Your task to perform on an android device: open the mobile data screen to see how much data has been used Image 0: 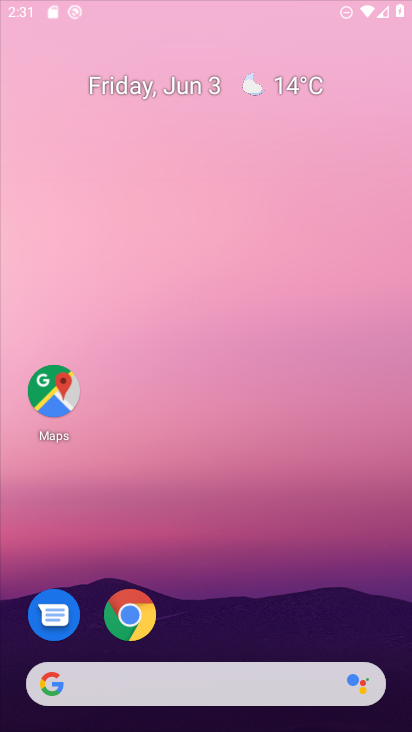
Step 0: drag from (165, 568) to (225, 72)
Your task to perform on an android device: open the mobile data screen to see how much data has been used Image 1: 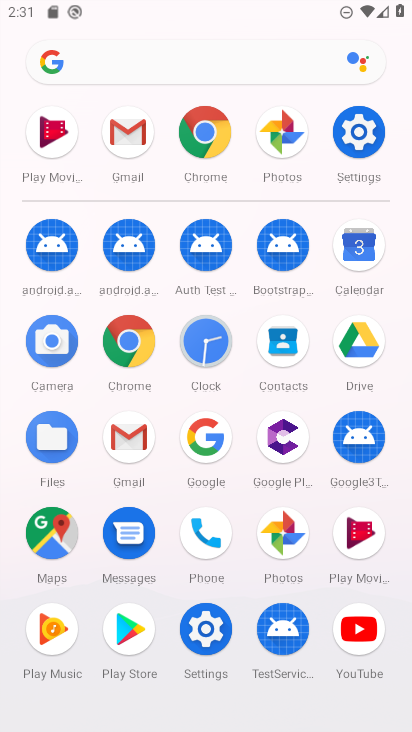
Step 1: drag from (175, 580) to (247, 206)
Your task to perform on an android device: open the mobile data screen to see how much data has been used Image 2: 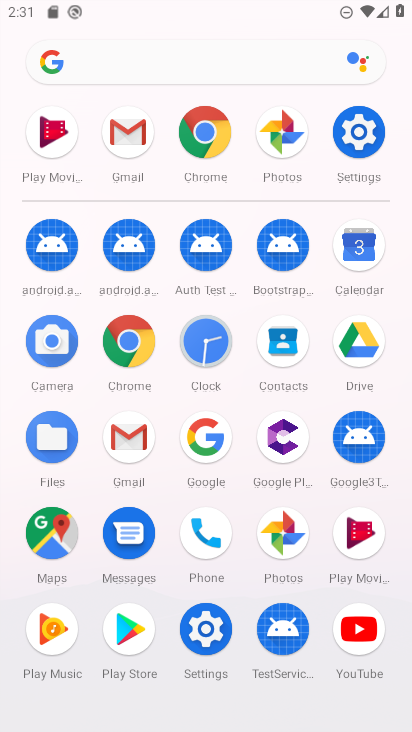
Step 2: click (196, 632)
Your task to perform on an android device: open the mobile data screen to see how much data has been used Image 3: 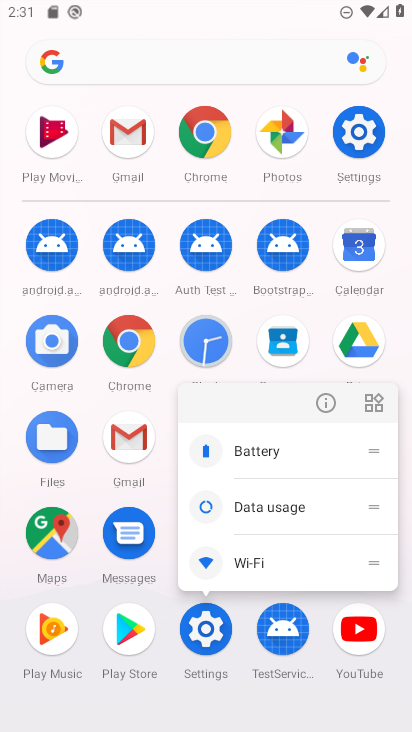
Step 3: click (343, 393)
Your task to perform on an android device: open the mobile data screen to see how much data has been used Image 4: 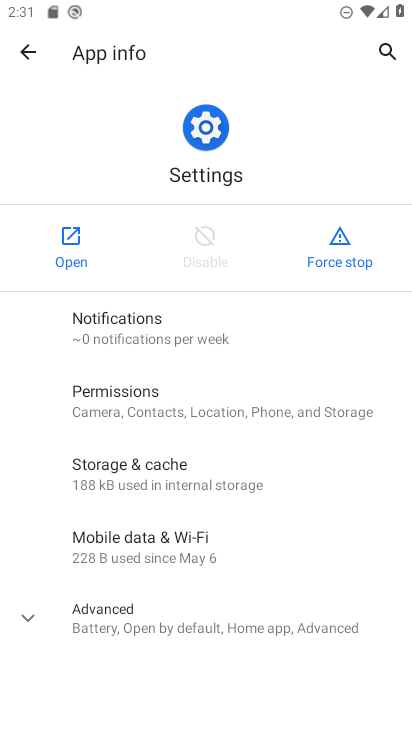
Step 4: click (73, 241)
Your task to perform on an android device: open the mobile data screen to see how much data has been used Image 5: 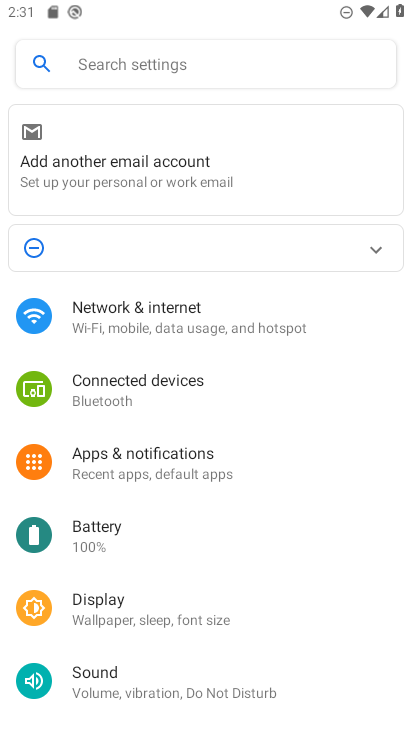
Step 5: drag from (221, 602) to (235, 320)
Your task to perform on an android device: open the mobile data screen to see how much data has been used Image 6: 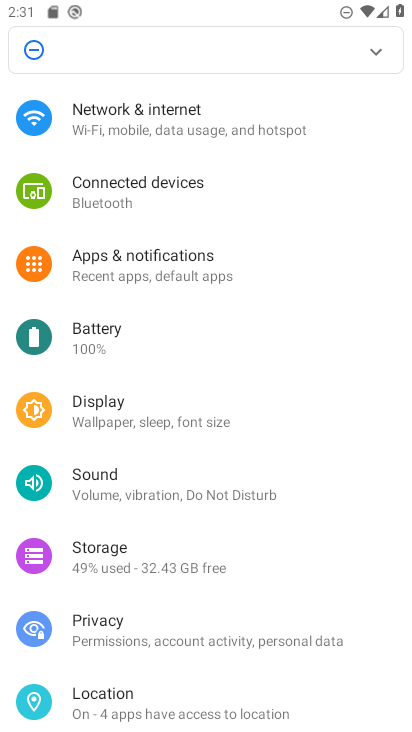
Step 6: drag from (180, 531) to (178, 230)
Your task to perform on an android device: open the mobile data screen to see how much data has been used Image 7: 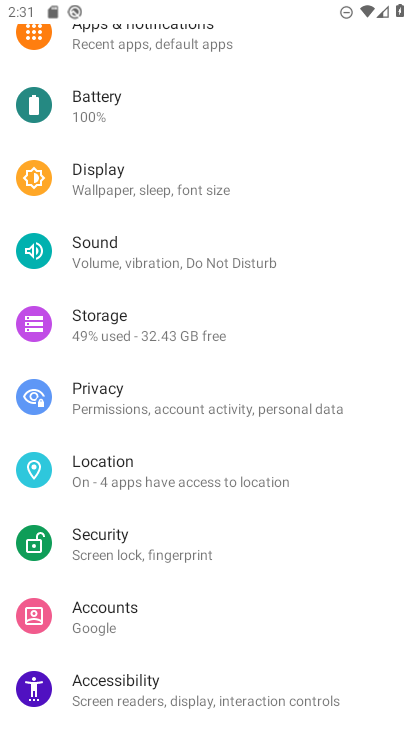
Step 7: drag from (262, 606) to (256, 383)
Your task to perform on an android device: open the mobile data screen to see how much data has been used Image 8: 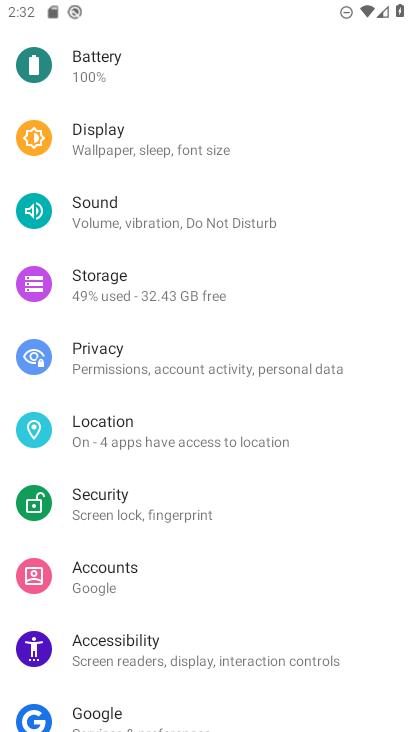
Step 8: drag from (255, 604) to (212, 145)
Your task to perform on an android device: open the mobile data screen to see how much data has been used Image 9: 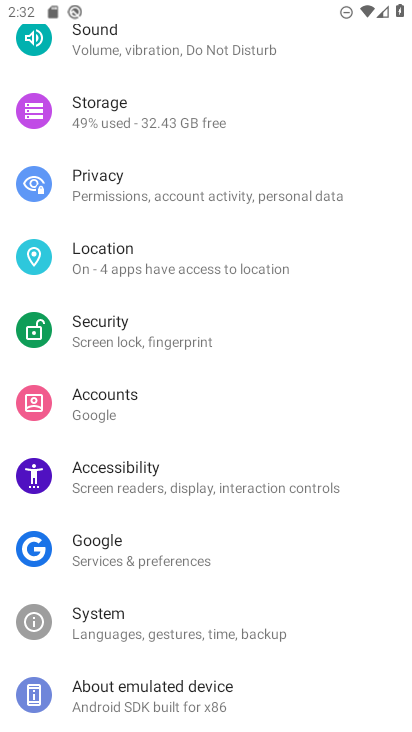
Step 9: drag from (242, 133) to (385, 727)
Your task to perform on an android device: open the mobile data screen to see how much data has been used Image 10: 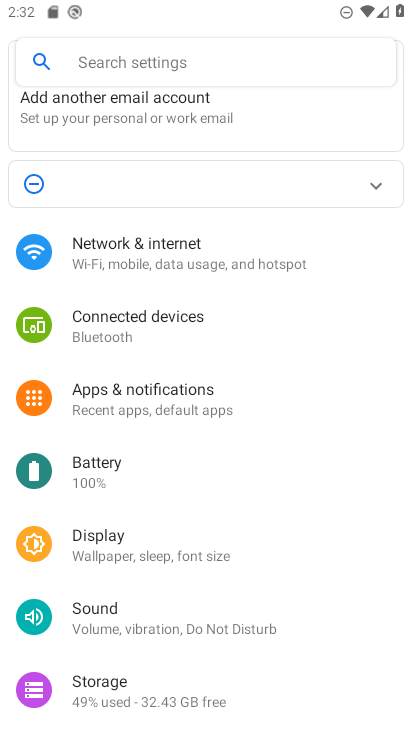
Step 10: click (217, 255)
Your task to perform on an android device: open the mobile data screen to see how much data has been used Image 11: 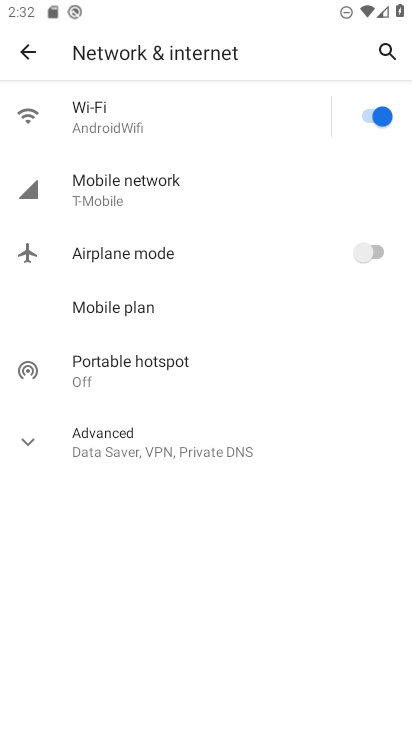
Step 11: click (225, 196)
Your task to perform on an android device: open the mobile data screen to see how much data has been used Image 12: 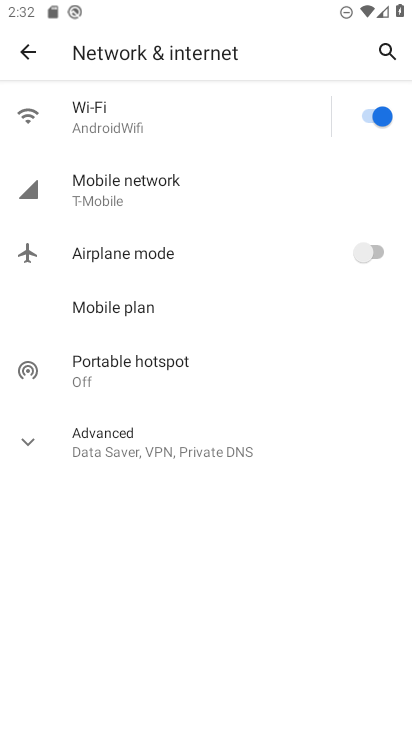
Step 12: task complete